Your task to perform on an android device: turn on javascript in the chrome app Image 0: 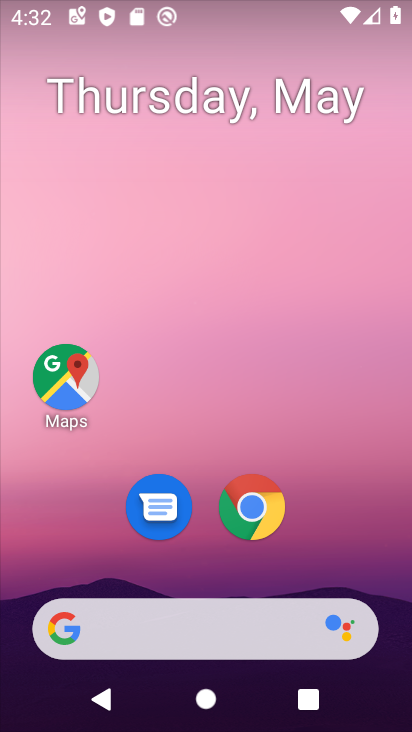
Step 0: click (246, 512)
Your task to perform on an android device: turn on javascript in the chrome app Image 1: 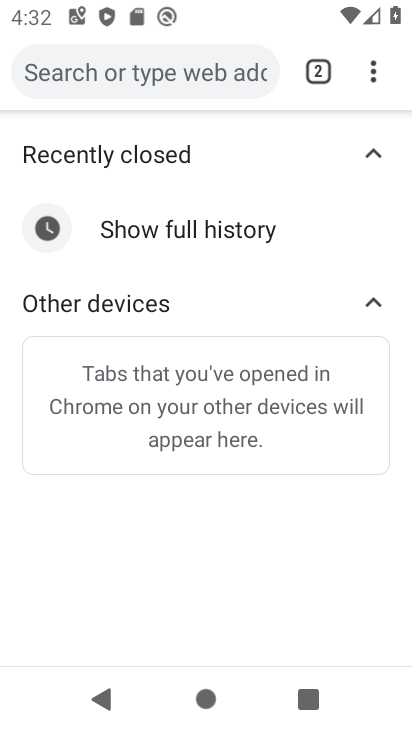
Step 1: click (372, 66)
Your task to perform on an android device: turn on javascript in the chrome app Image 2: 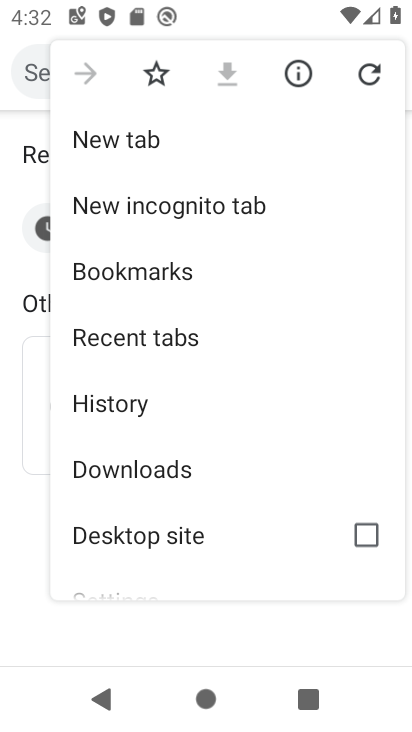
Step 2: drag from (208, 542) to (207, 171)
Your task to perform on an android device: turn on javascript in the chrome app Image 3: 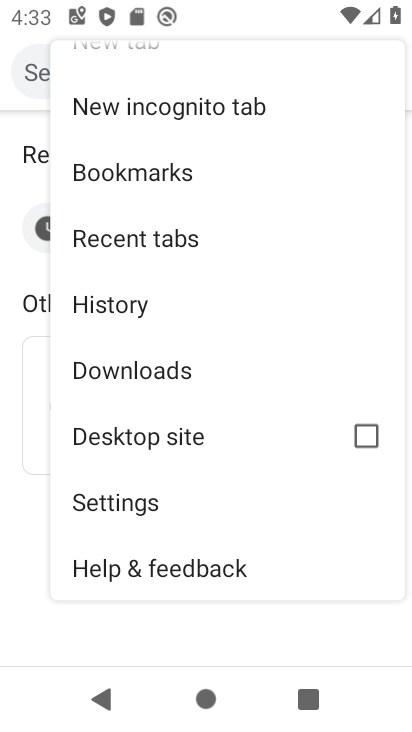
Step 3: click (140, 506)
Your task to perform on an android device: turn on javascript in the chrome app Image 4: 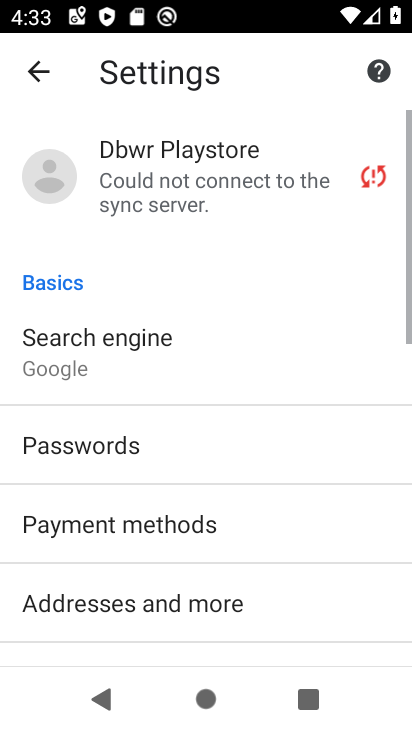
Step 4: drag from (114, 576) to (118, 245)
Your task to perform on an android device: turn on javascript in the chrome app Image 5: 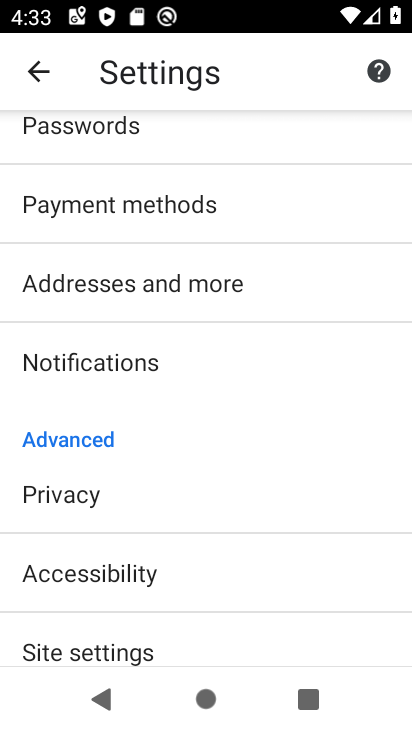
Step 5: click (117, 639)
Your task to perform on an android device: turn on javascript in the chrome app Image 6: 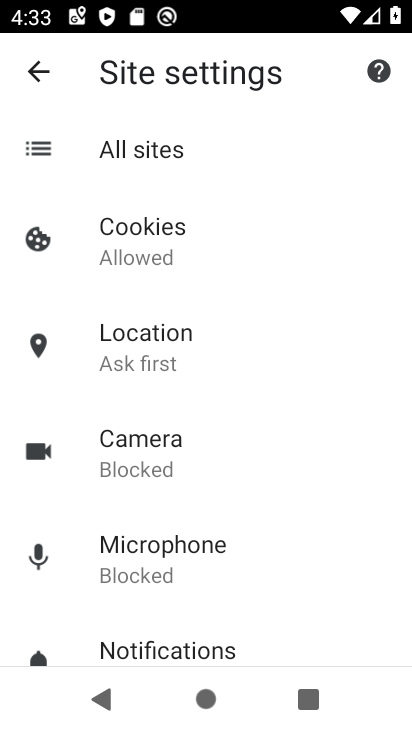
Step 6: drag from (187, 615) to (269, 156)
Your task to perform on an android device: turn on javascript in the chrome app Image 7: 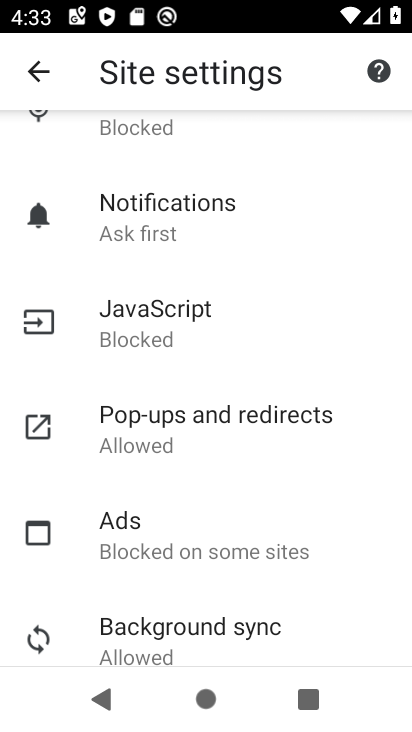
Step 7: click (141, 315)
Your task to perform on an android device: turn on javascript in the chrome app Image 8: 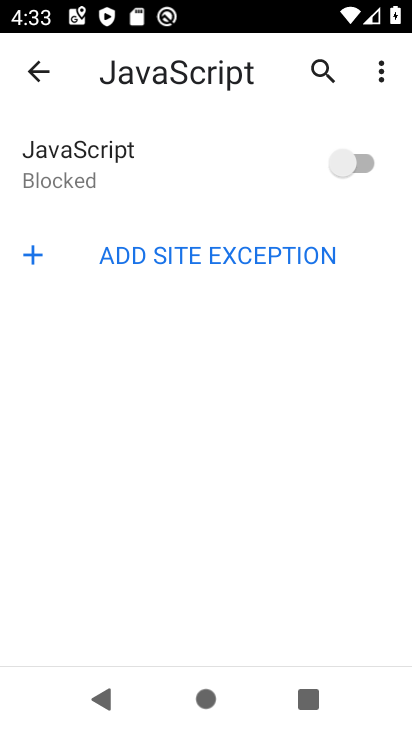
Step 8: click (356, 163)
Your task to perform on an android device: turn on javascript in the chrome app Image 9: 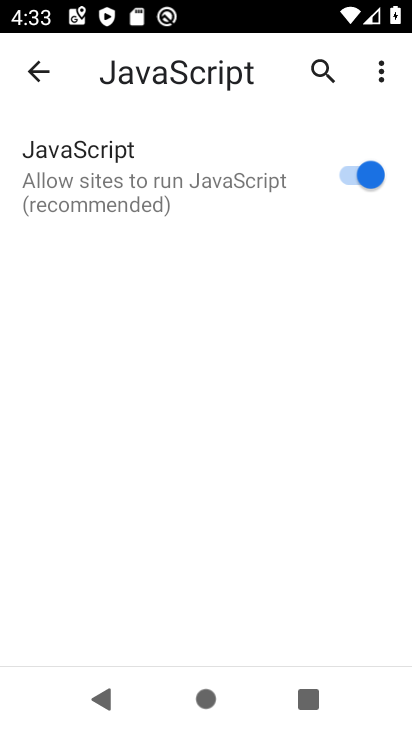
Step 9: task complete